Your task to perform on an android device: set an alarm Image 0: 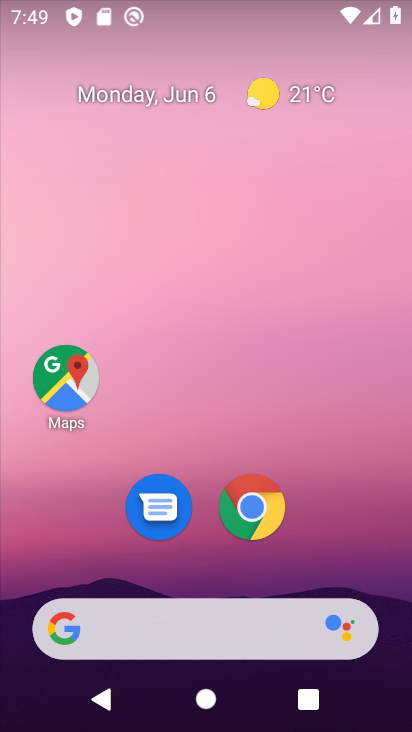
Step 0: drag from (347, 528) to (292, 37)
Your task to perform on an android device: set an alarm Image 1: 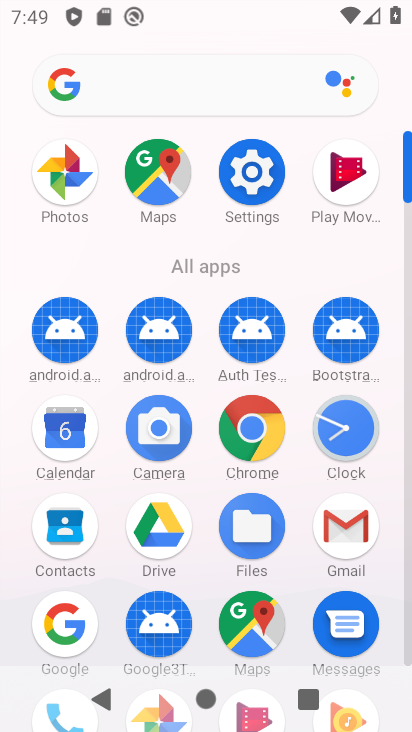
Step 1: click (342, 432)
Your task to perform on an android device: set an alarm Image 2: 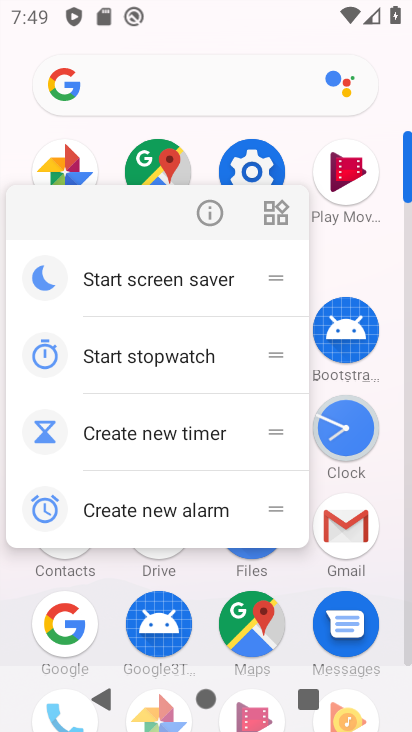
Step 2: click (343, 429)
Your task to perform on an android device: set an alarm Image 3: 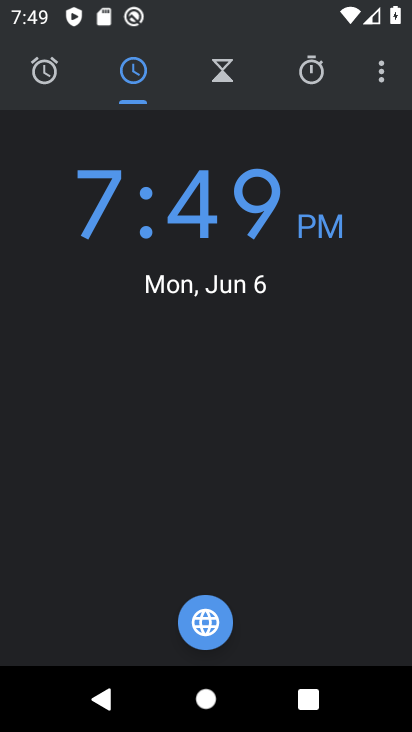
Step 3: click (34, 75)
Your task to perform on an android device: set an alarm Image 4: 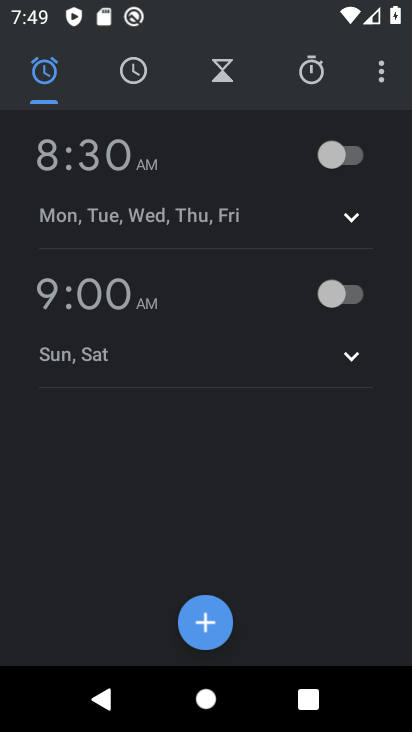
Step 4: click (229, 602)
Your task to perform on an android device: set an alarm Image 5: 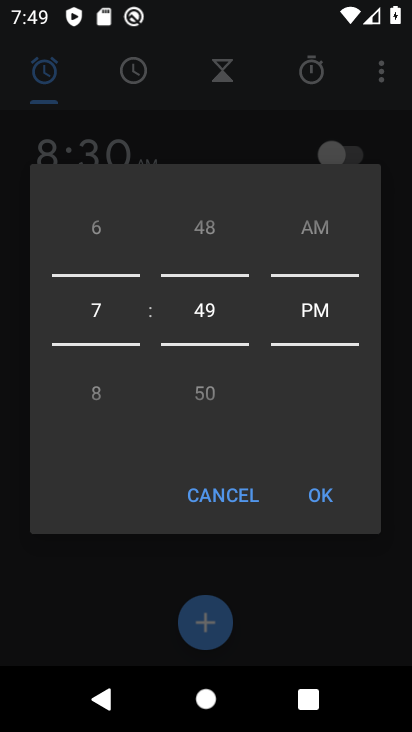
Step 5: click (295, 491)
Your task to perform on an android device: set an alarm Image 6: 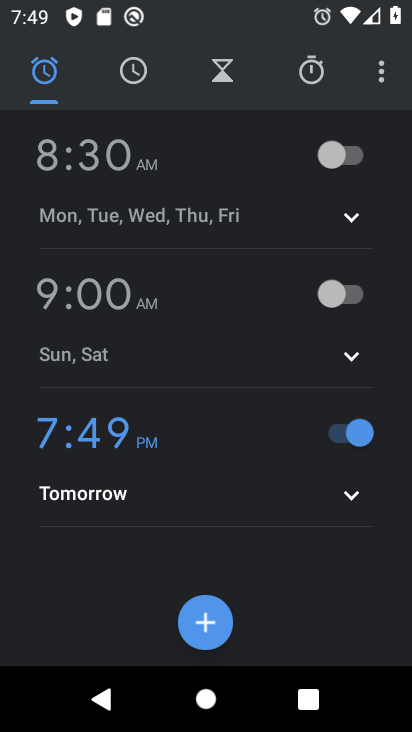
Step 6: task complete